Your task to perform on an android device: open app "Spotify" (install if not already installed), go to login, and select forgot password Image 0: 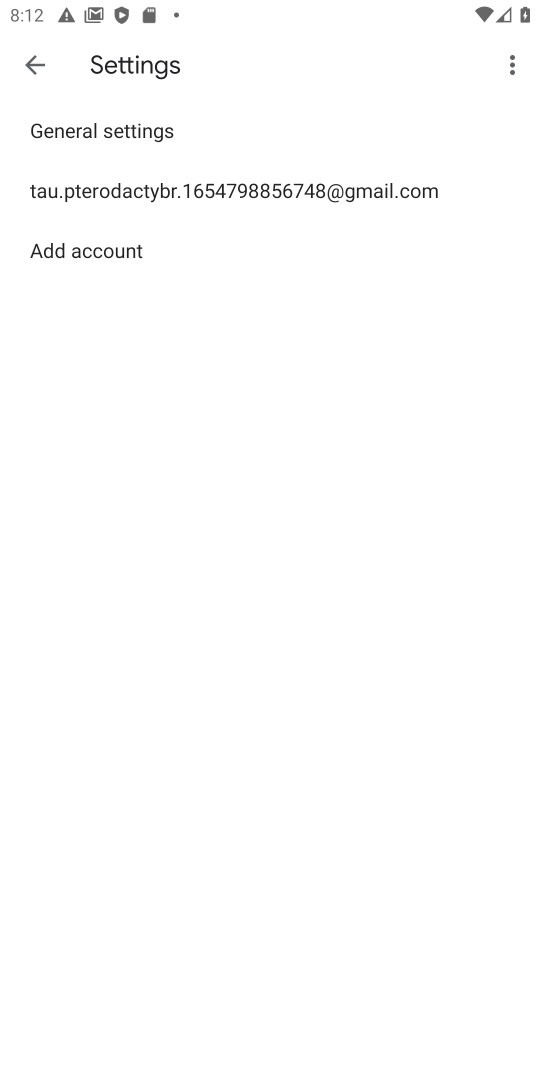
Step 0: press home button
Your task to perform on an android device: open app "Spotify" (install if not already installed), go to login, and select forgot password Image 1: 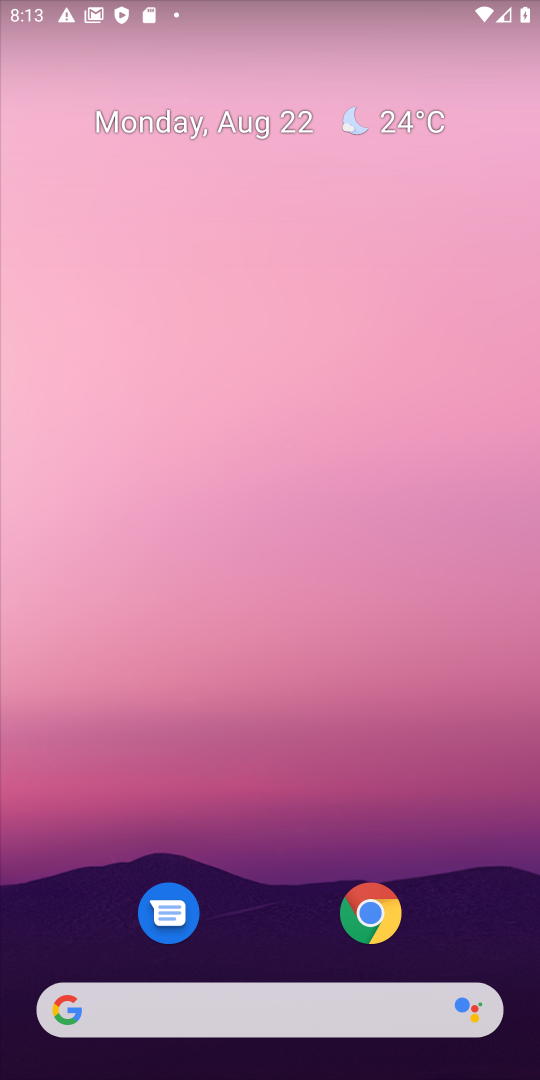
Step 1: drag from (302, 998) to (248, 234)
Your task to perform on an android device: open app "Spotify" (install if not already installed), go to login, and select forgot password Image 2: 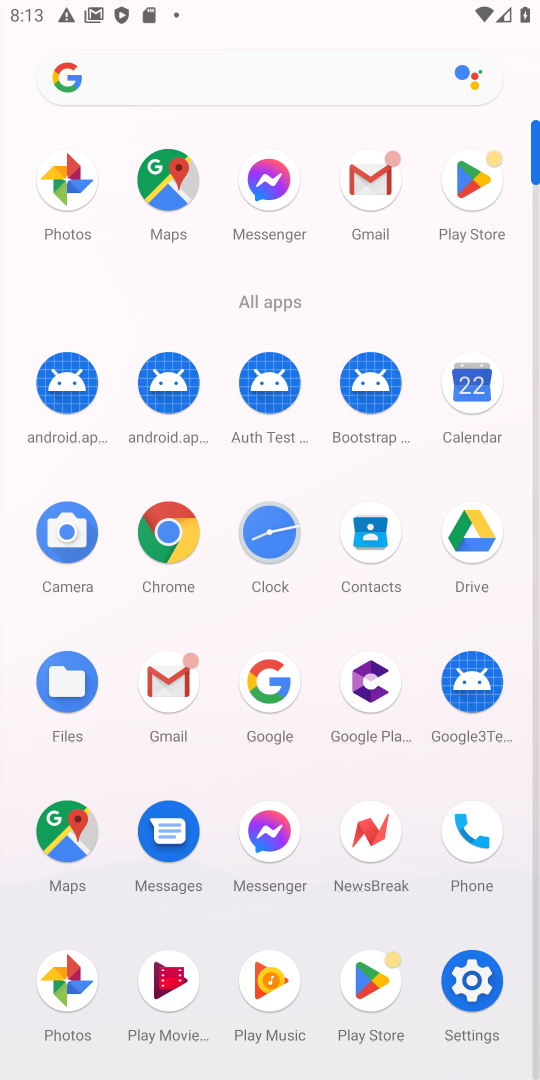
Step 2: click (476, 206)
Your task to perform on an android device: open app "Spotify" (install if not already installed), go to login, and select forgot password Image 3: 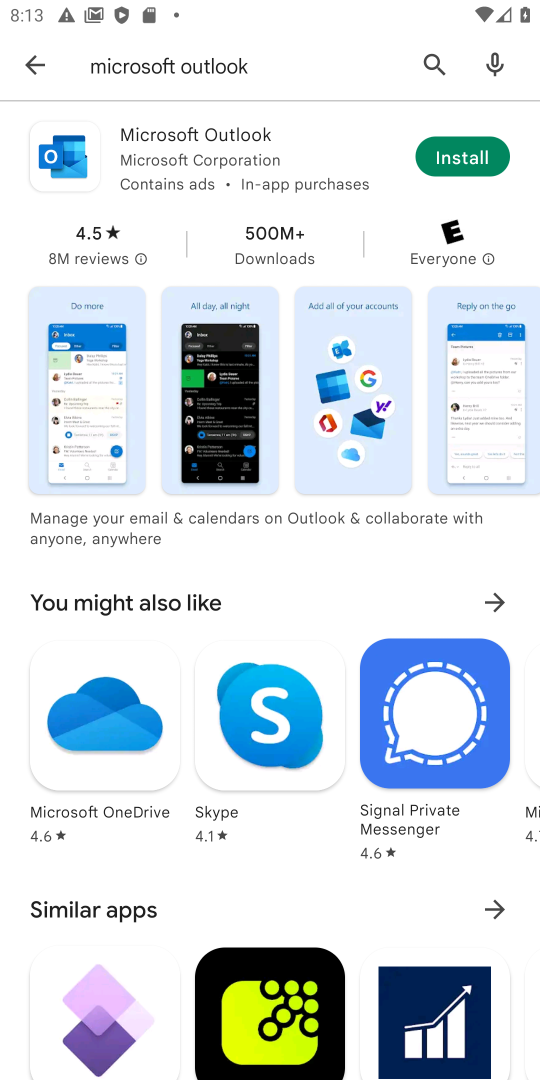
Step 3: click (428, 46)
Your task to perform on an android device: open app "Spotify" (install if not already installed), go to login, and select forgot password Image 4: 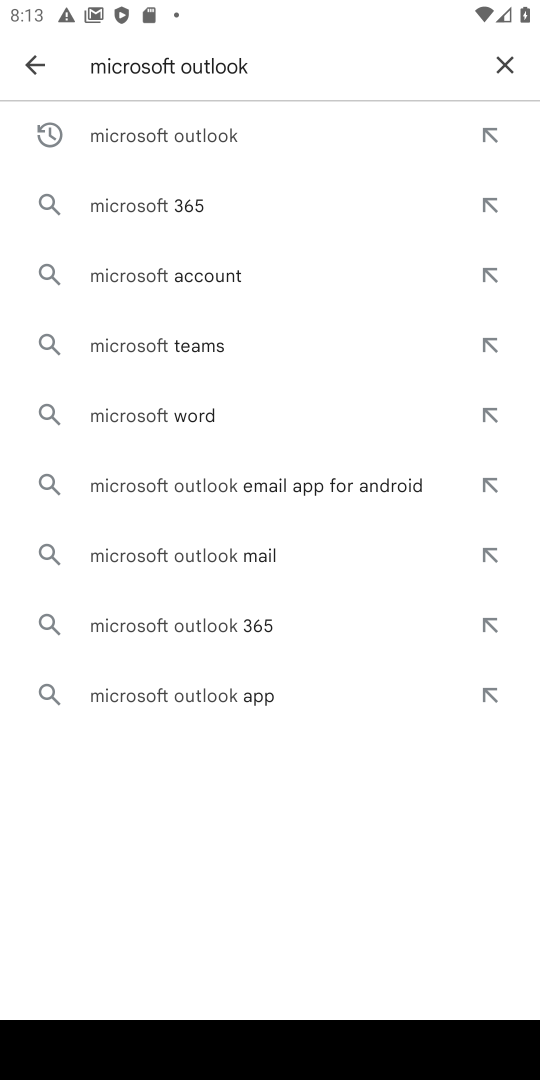
Step 4: click (501, 68)
Your task to perform on an android device: open app "Spotify" (install if not already installed), go to login, and select forgot password Image 5: 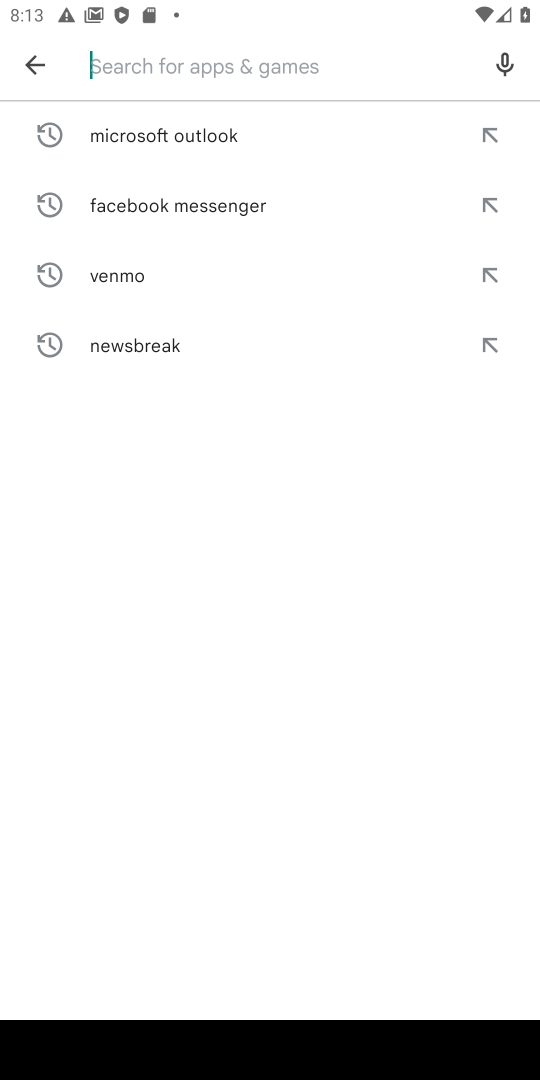
Step 5: type "spotify"
Your task to perform on an android device: open app "Spotify" (install if not already installed), go to login, and select forgot password Image 6: 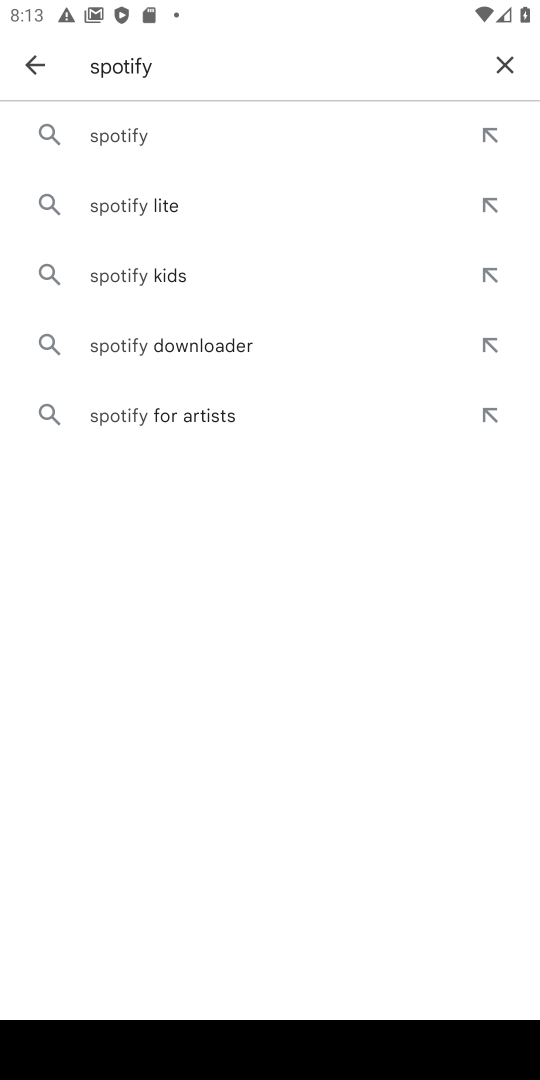
Step 6: click (111, 131)
Your task to perform on an android device: open app "Spotify" (install if not already installed), go to login, and select forgot password Image 7: 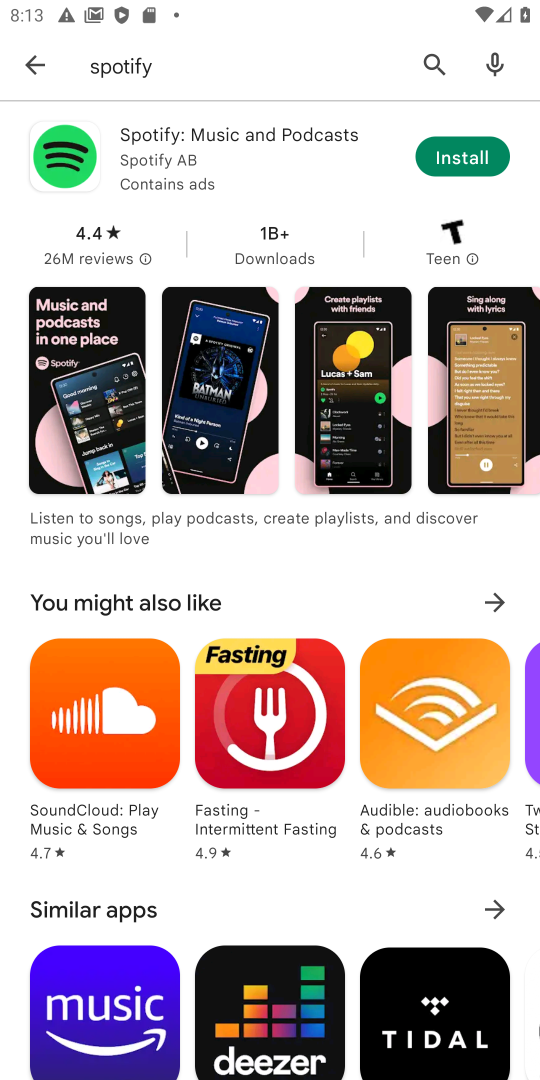
Step 7: click (479, 155)
Your task to perform on an android device: open app "Spotify" (install if not already installed), go to login, and select forgot password Image 8: 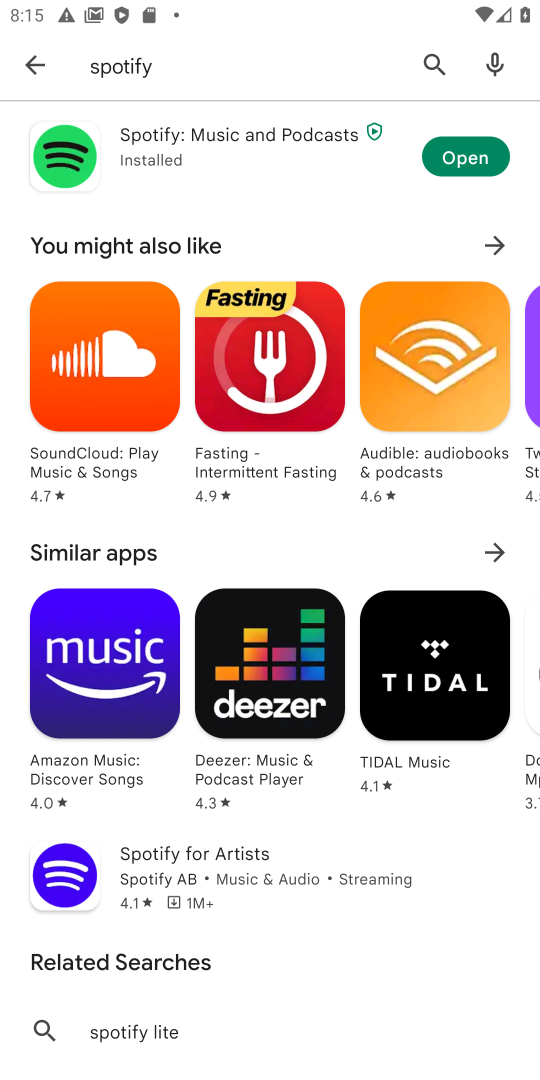
Step 8: click (465, 156)
Your task to perform on an android device: open app "Spotify" (install if not already installed), go to login, and select forgot password Image 9: 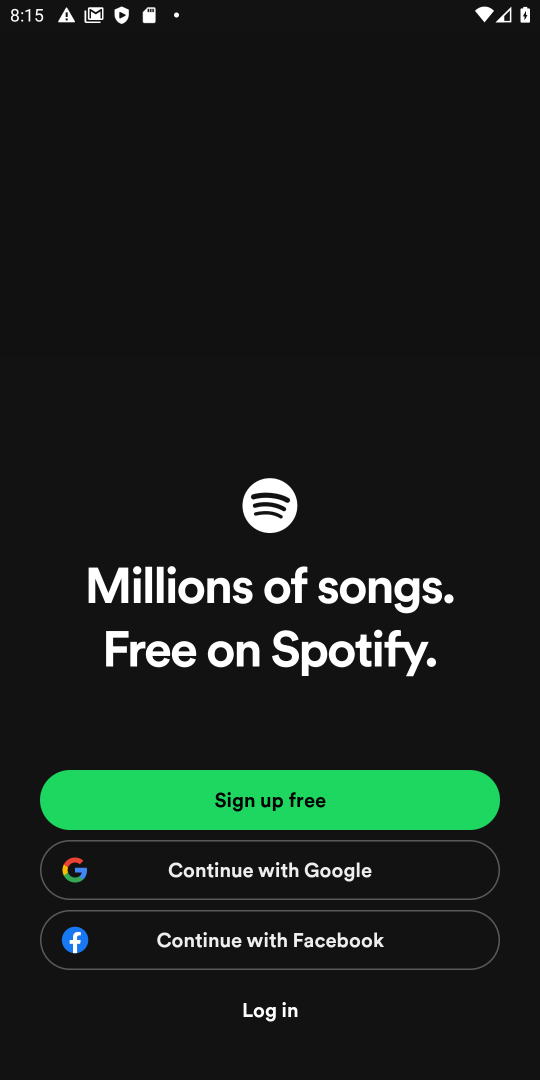
Step 9: click (270, 996)
Your task to perform on an android device: open app "Spotify" (install if not already installed), go to login, and select forgot password Image 10: 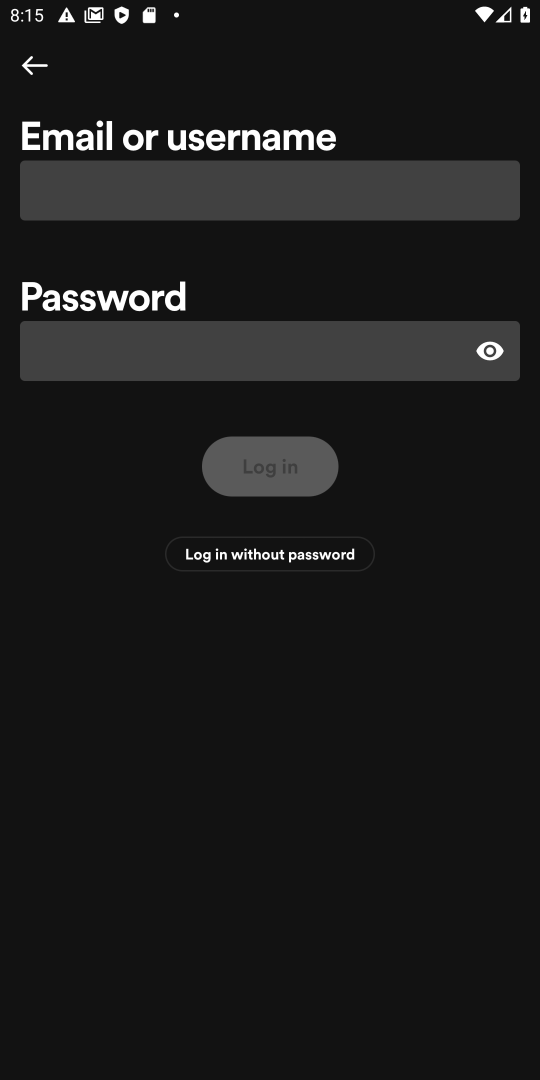
Step 10: task complete